Your task to perform on an android device: Open eBay Image 0: 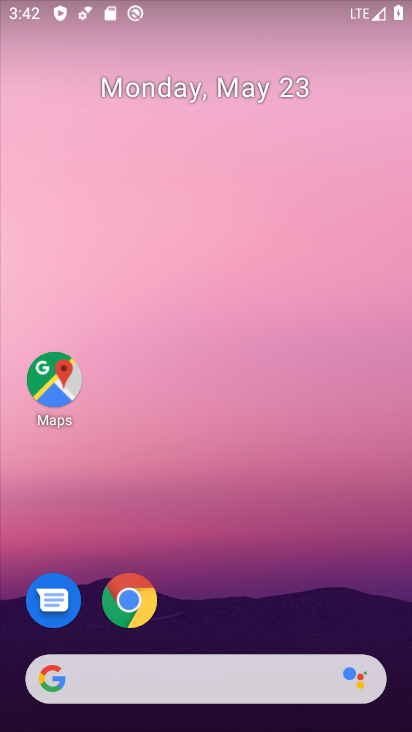
Step 0: click (130, 601)
Your task to perform on an android device: Open eBay Image 1: 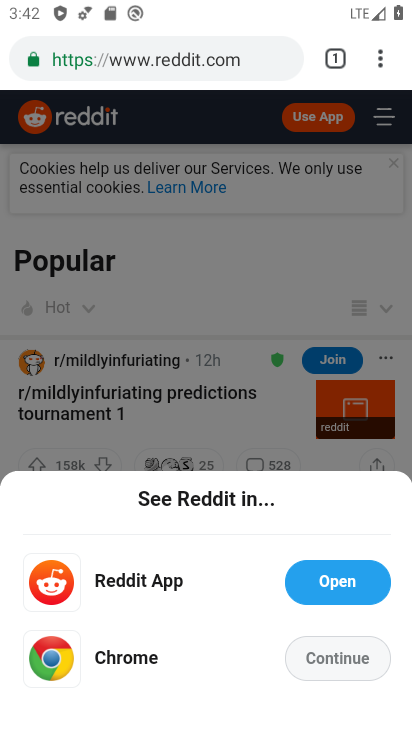
Step 1: click (111, 67)
Your task to perform on an android device: Open eBay Image 2: 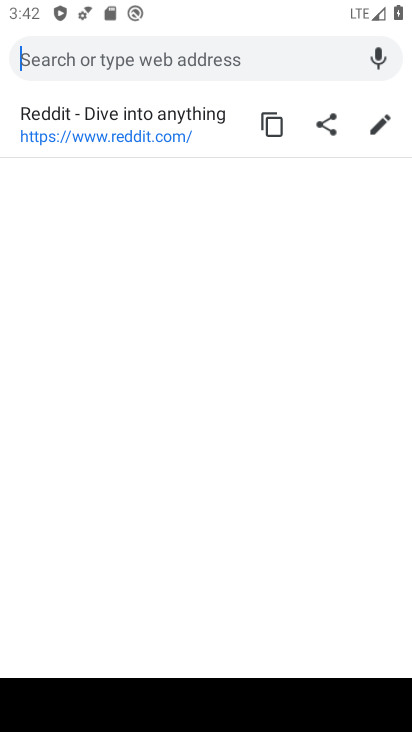
Step 2: type "ebay"
Your task to perform on an android device: Open eBay Image 3: 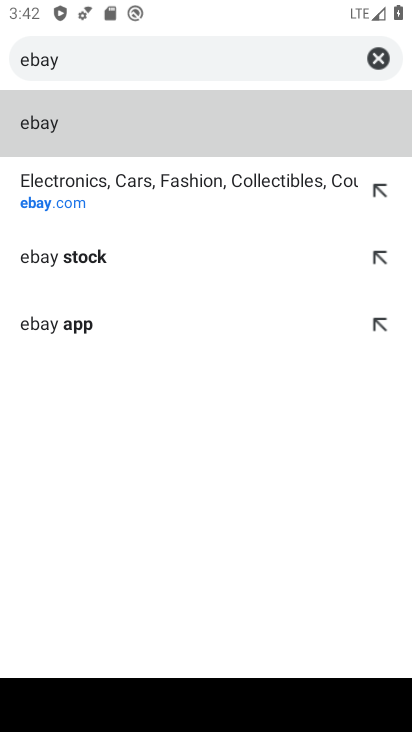
Step 3: click (38, 130)
Your task to perform on an android device: Open eBay Image 4: 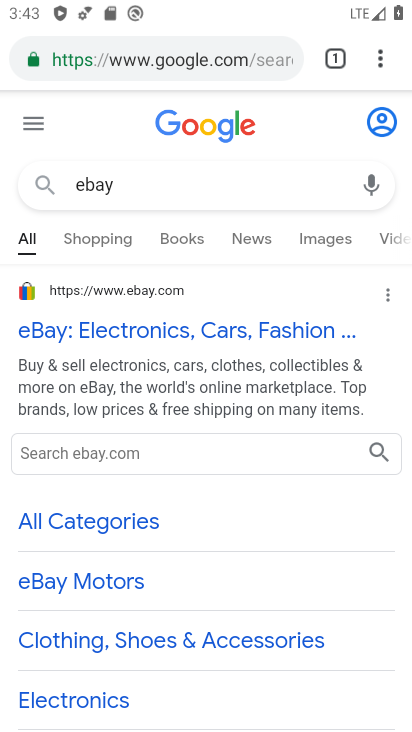
Step 4: click (81, 339)
Your task to perform on an android device: Open eBay Image 5: 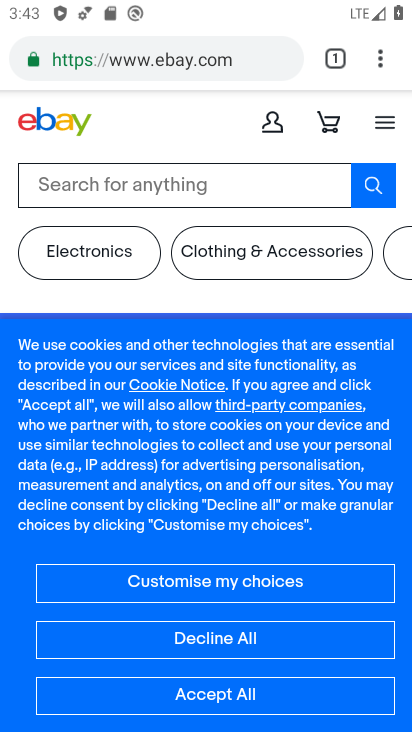
Step 5: task complete